Your task to perform on an android device: delete location history Image 0: 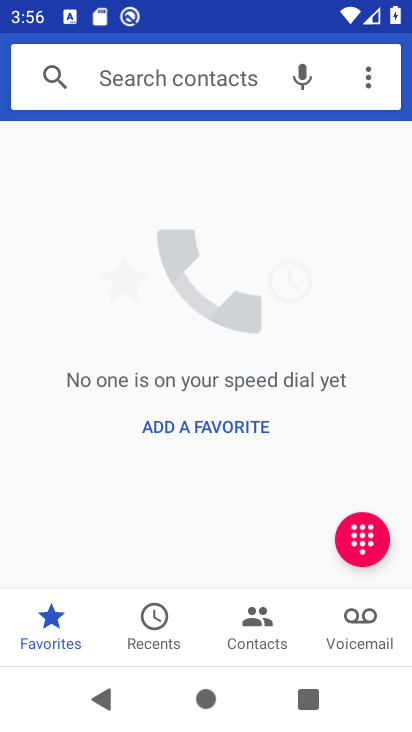
Step 0: press home button
Your task to perform on an android device: delete location history Image 1: 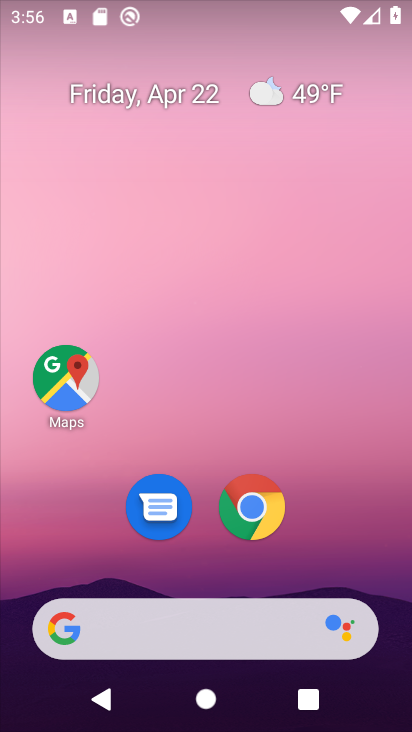
Step 1: click (61, 374)
Your task to perform on an android device: delete location history Image 2: 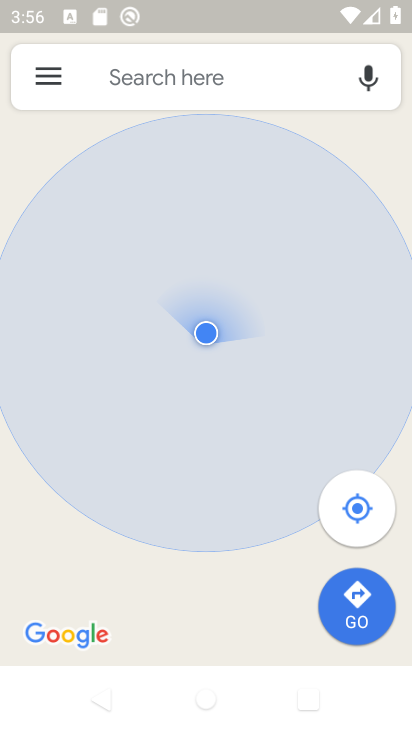
Step 2: click (46, 74)
Your task to perform on an android device: delete location history Image 3: 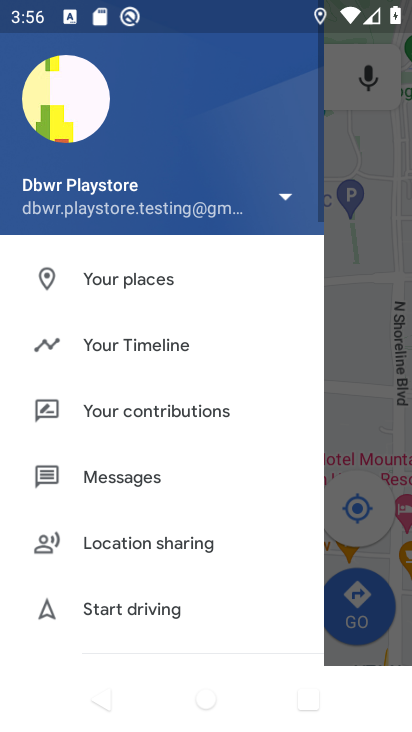
Step 3: drag from (250, 563) to (275, 283)
Your task to perform on an android device: delete location history Image 4: 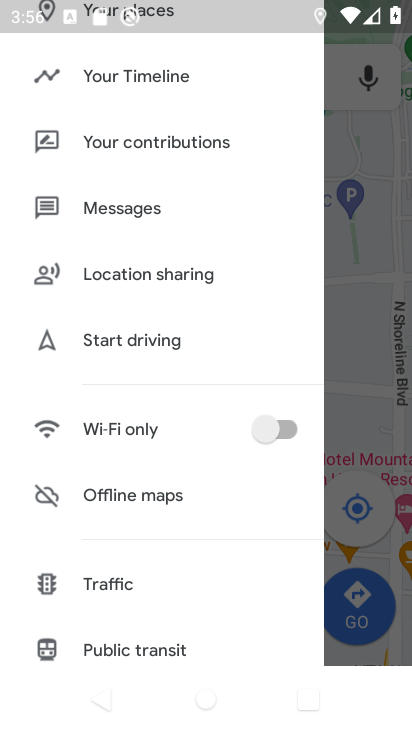
Step 4: drag from (232, 590) to (279, 201)
Your task to perform on an android device: delete location history Image 5: 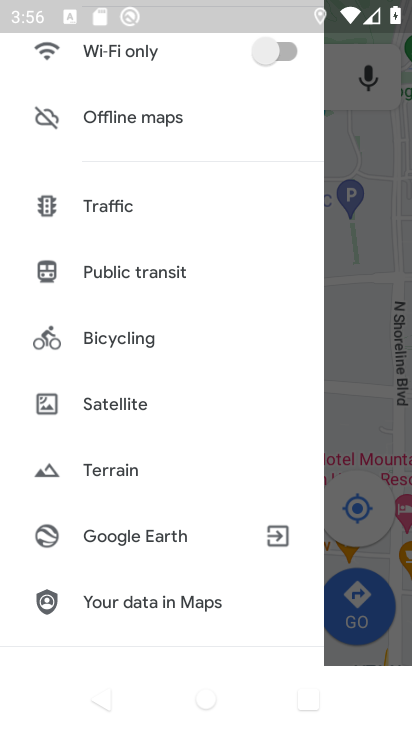
Step 5: drag from (240, 518) to (258, 168)
Your task to perform on an android device: delete location history Image 6: 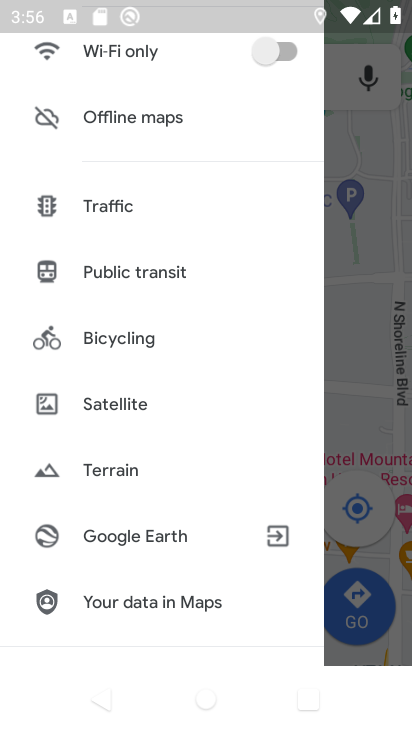
Step 6: drag from (237, 547) to (260, 170)
Your task to perform on an android device: delete location history Image 7: 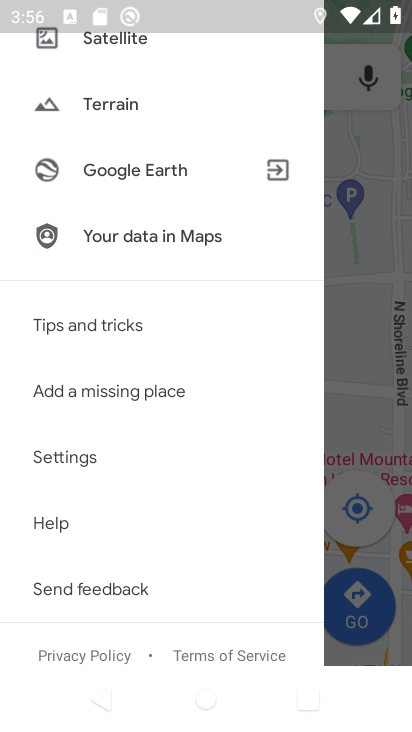
Step 7: click (59, 455)
Your task to perform on an android device: delete location history Image 8: 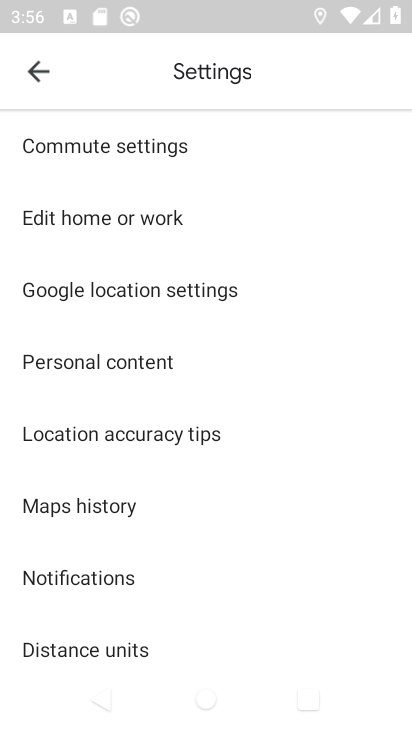
Step 8: click (78, 359)
Your task to perform on an android device: delete location history Image 9: 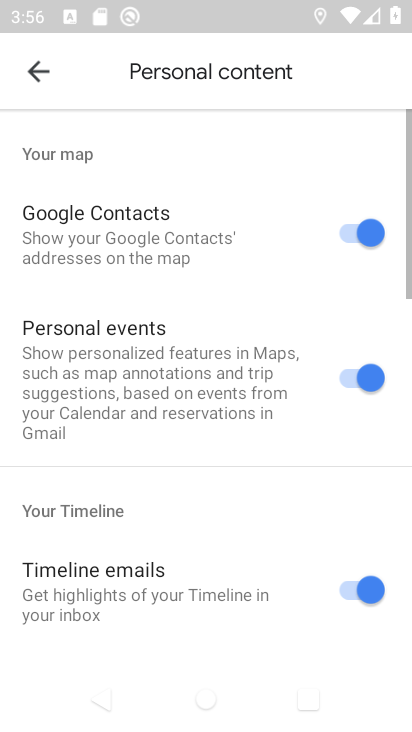
Step 9: drag from (280, 556) to (322, 168)
Your task to perform on an android device: delete location history Image 10: 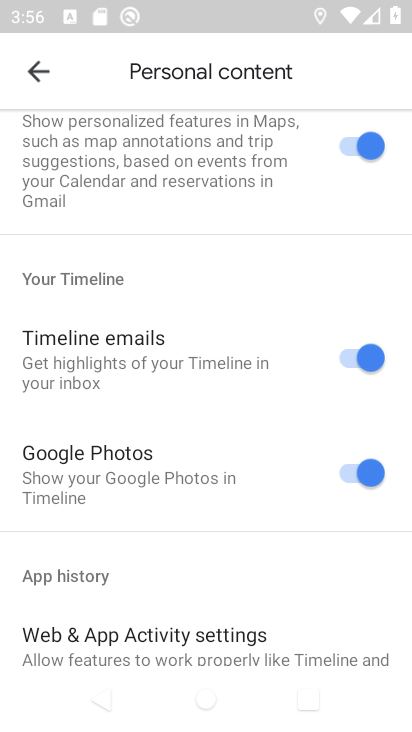
Step 10: drag from (290, 561) to (318, 153)
Your task to perform on an android device: delete location history Image 11: 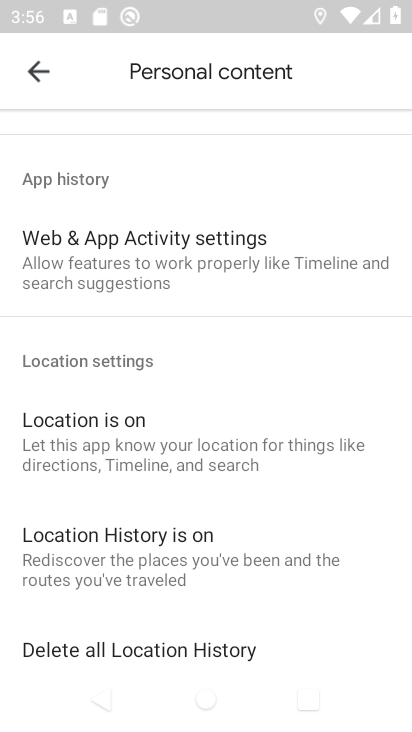
Step 11: drag from (336, 521) to (324, 152)
Your task to perform on an android device: delete location history Image 12: 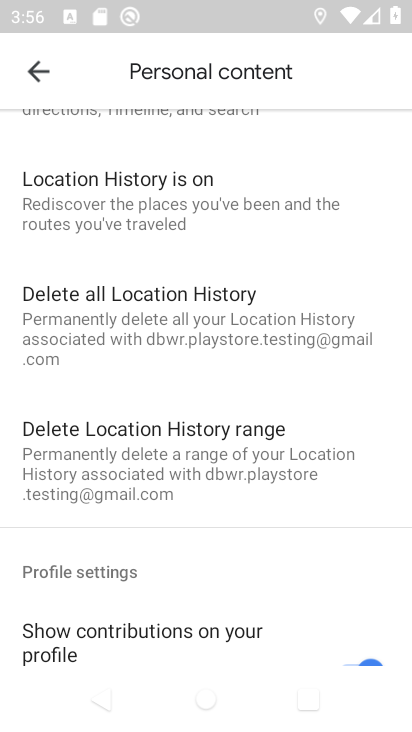
Step 12: click (112, 318)
Your task to perform on an android device: delete location history Image 13: 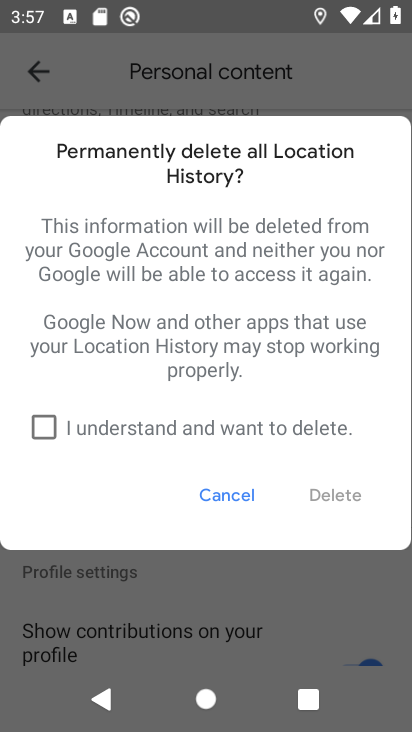
Step 13: click (43, 428)
Your task to perform on an android device: delete location history Image 14: 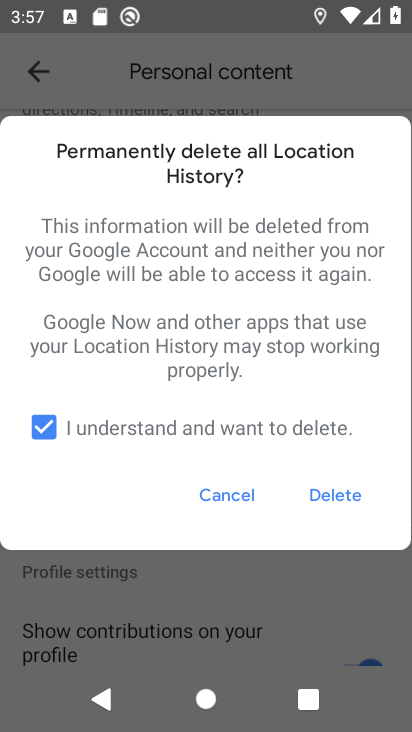
Step 14: click (333, 491)
Your task to perform on an android device: delete location history Image 15: 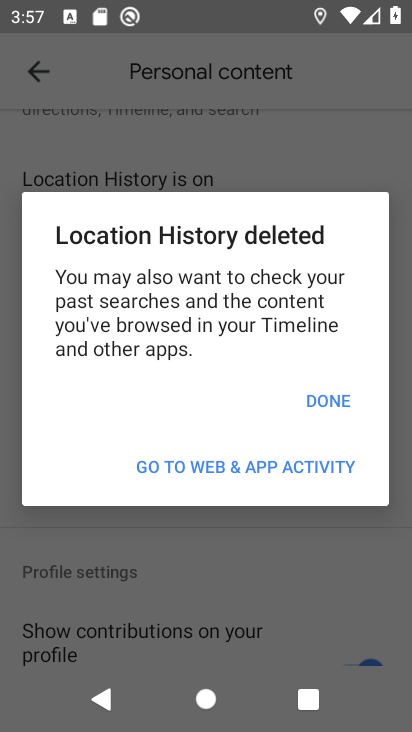
Step 15: click (332, 397)
Your task to perform on an android device: delete location history Image 16: 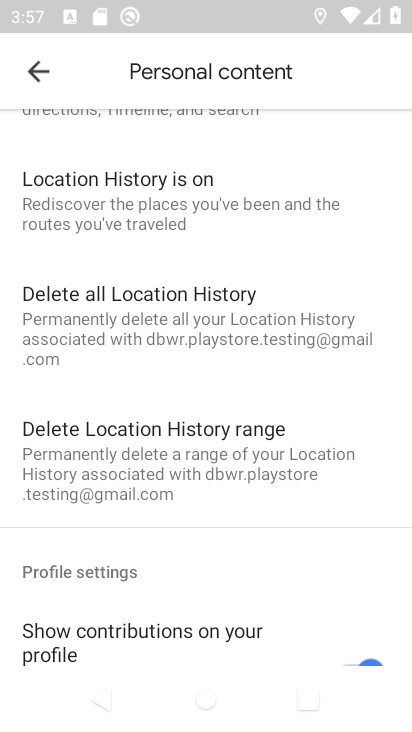
Step 16: task complete